Your task to perform on an android device: turn on notifications settings in the gmail app Image 0: 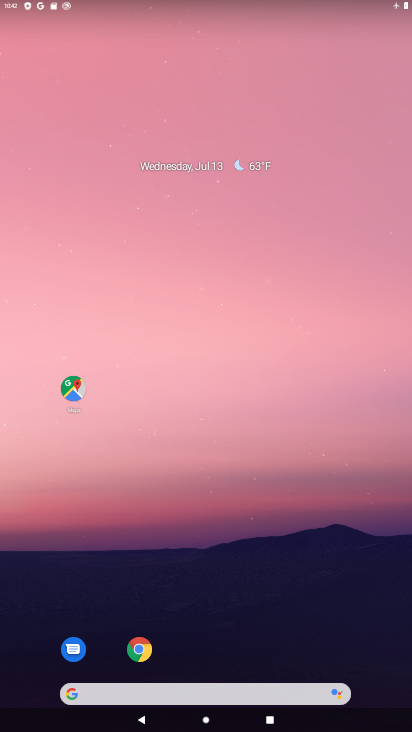
Step 0: drag from (317, 609) to (300, 38)
Your task to perform on an android device: turn on notifications settings in the gmail app Image 1: 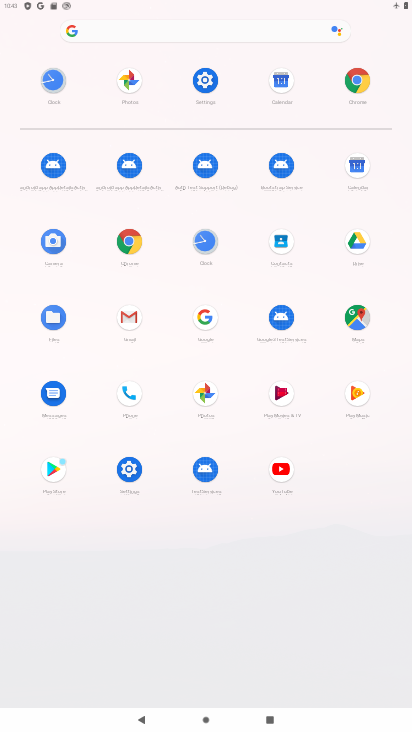
Step 1: click (125, 325)
Your task to perform on an android device: turn on notifications settings in the gmail app Image 2: 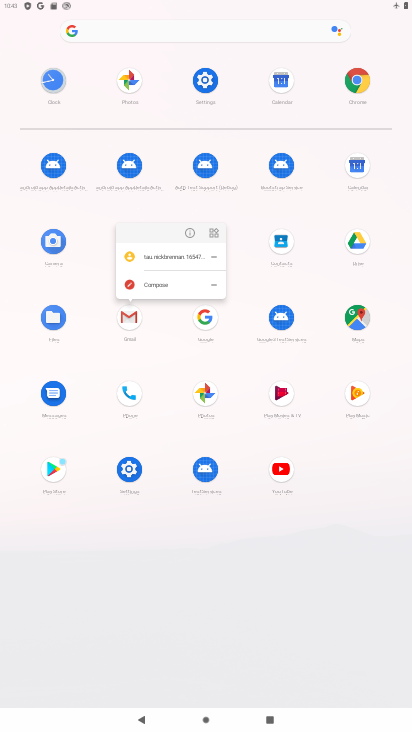
Step 2: click (121, 319)
Your task to perform on an android device: turn on notifications settings in the gmail app Image 3: 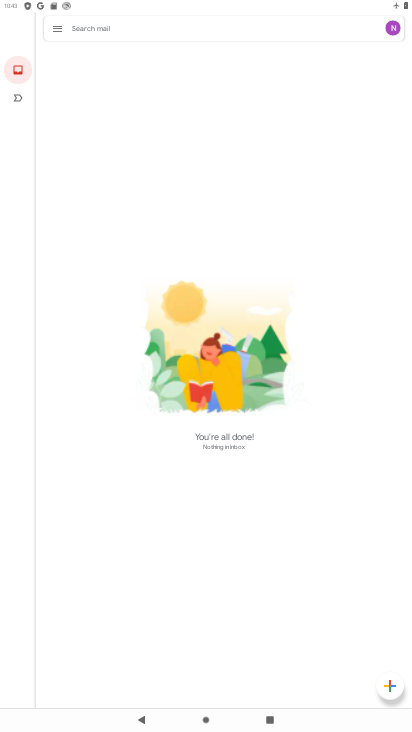
Step 3: click (51, 21)
Your task to perform on an android device: turn on notifications settings in the gmail app Image 4: 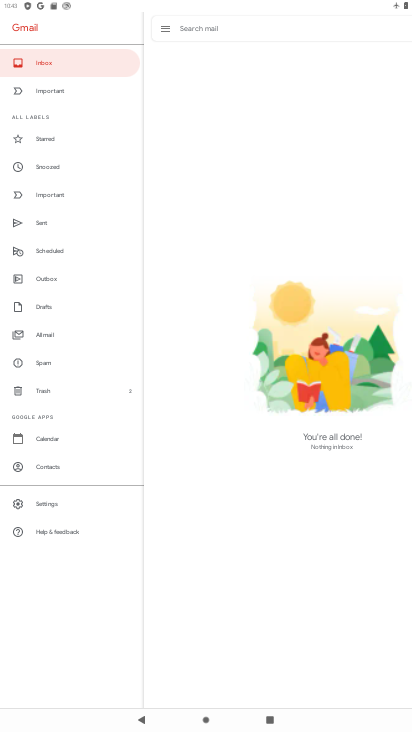
Step 4: click (42, 503)
Your task to perform on an android device: turn on notifications settings in the gmail app Image 5: 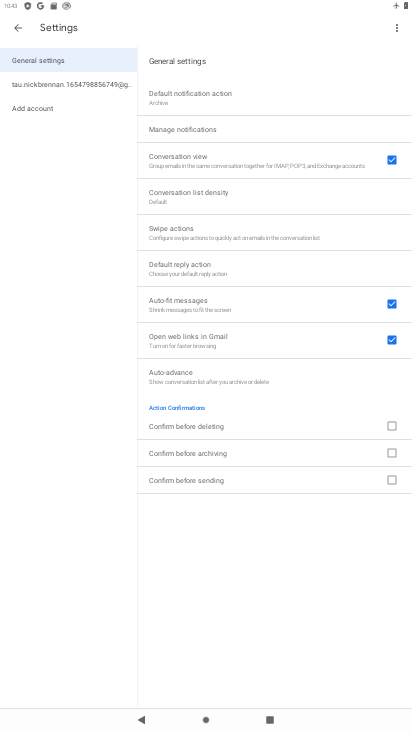
Step 5: click (198, 126)
Your task to perform on an android device: turn on notifications settings in the gmail app Image 6: 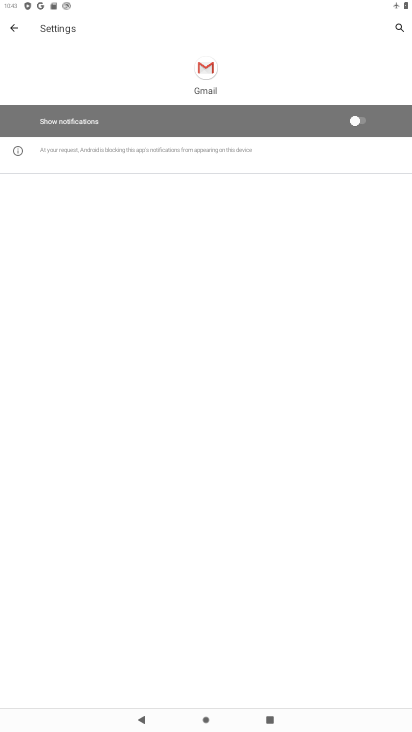
Step 6: click (355, 115)
Your task to perform on an android device: turn on notifications settings in the gmail app Image 7: 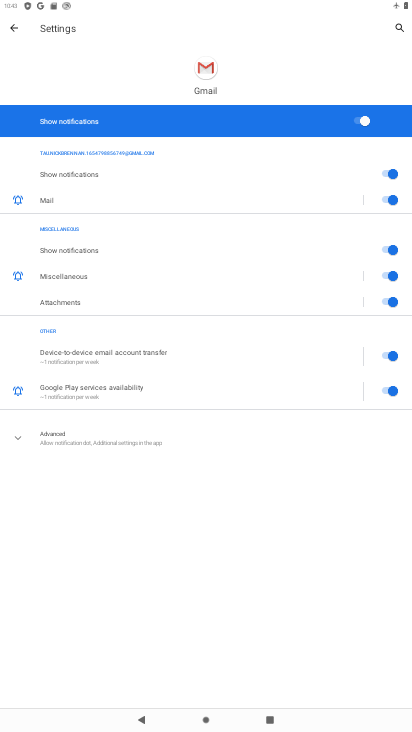
Step 7: task complete